Your task to perform on an android device: Search for the most popular coffee table on Crate & Barrel Image 0: 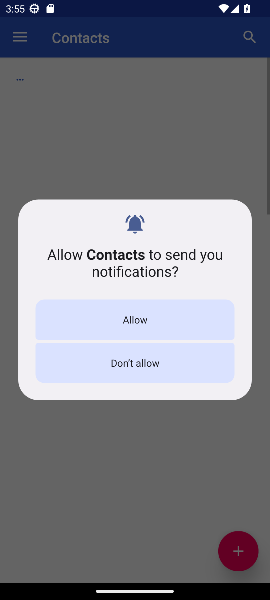
Step 0: press home button
Your task to perform on an android device: Search for the most popular coffee table on Crate & Barrel Image 1: 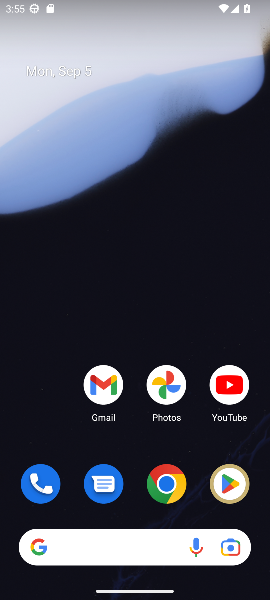
Step 1: click (157, 486)
Your task to perform on an android device: Search for the most popular coffee table on Crate & Barrel Image 2: 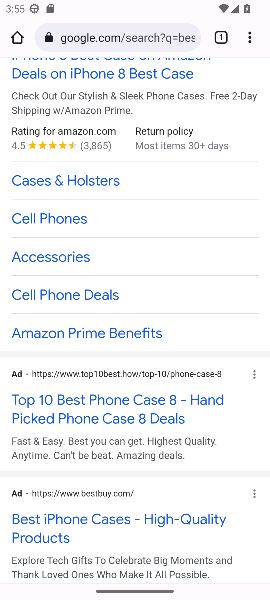
Step 2: click (142, 32)
Your task to perform on an android device: Search for the most popular coffee table on Crate & Barrel Image 3: 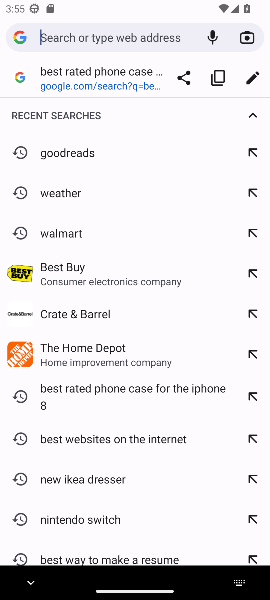
Step 3: type "Crate & Barrel"
Your task to perform on an android device: Search for the most popular coffee table on Crate & Barrel Image 4: 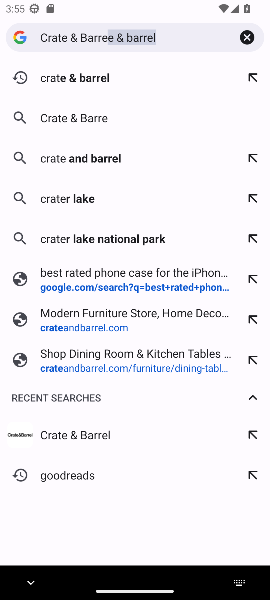
Step 4: press enter
Your task to perform on an android device: Search for the most popular coffee table on Crate & Barrel Image 5: 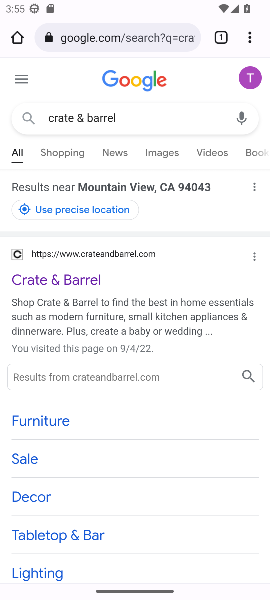
Step 5: click (66, 285)
Your task to perform on an android device: Search for the most popular coffee table on Crate & Barrel Image 6: 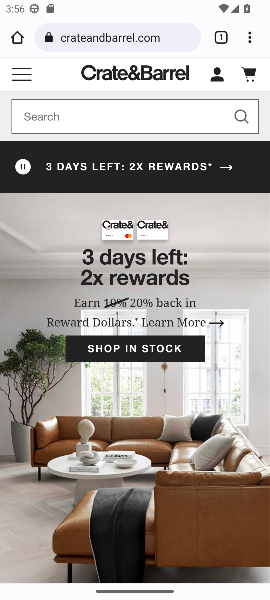
Step 6: click (170, 123)
Your task to perform on an android device: Search for the most popular coffee table on Crate & Barrel Image 7: 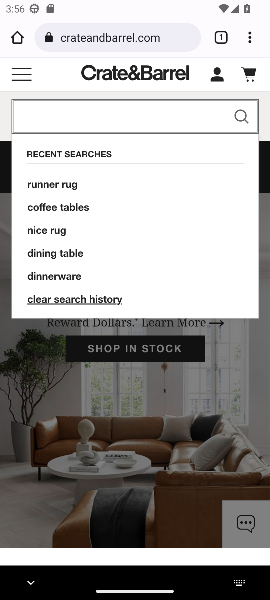
Step 7: type "coffee table"
Your task to perform on an android device: Search for the most popular coffee table on Crate & Barrel Image 8: 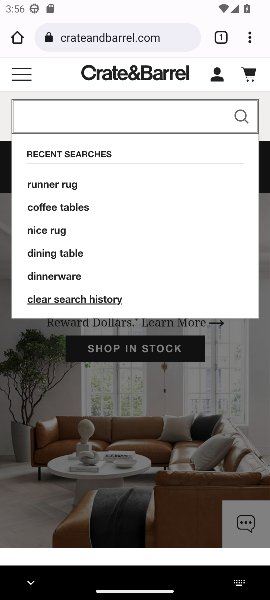
Step 8: press enter
Your task to perform on an android device: Search for the most popular coffee table on Crate & Barrel Image 9: 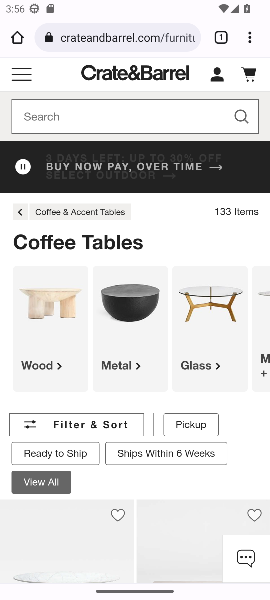
Step 9: task complete